Your task to perform on an android device: Show me popular games on the Play Store Image 0: 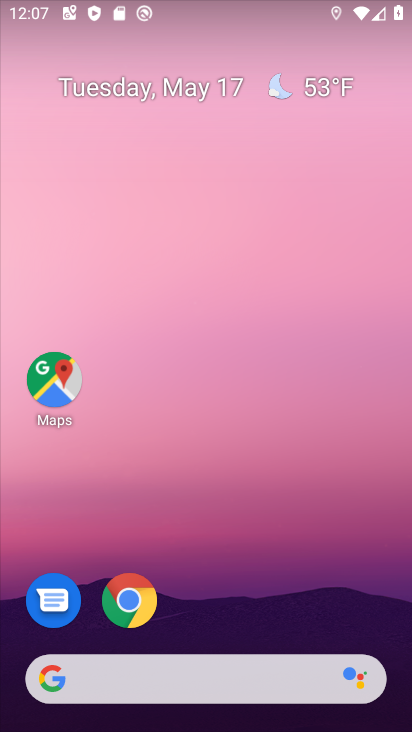
Step 0: drag from (249, 611) to (278, 20)
Your task to perform on an android device: Show me popular games on the Play Store Image 1: 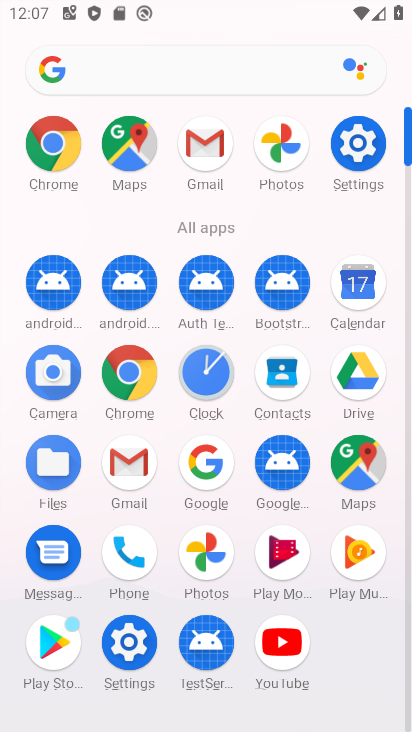
Step 1: click (49, 652)
Your task to perform on an android device: Show me popular games on the Play Store Image 2: 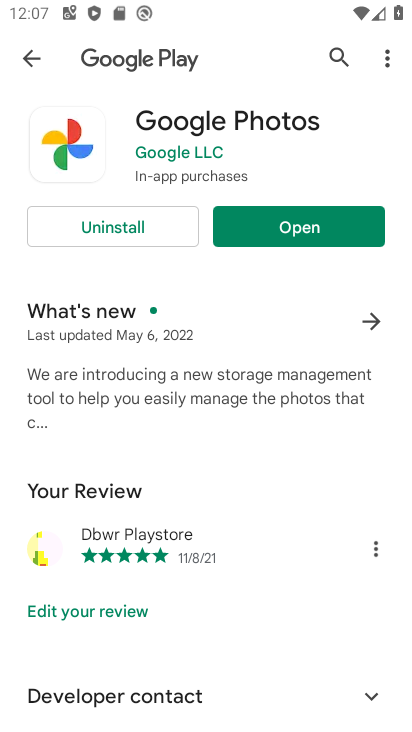
Step 2: click (29, 56)
Your task to perform on an android device: Show me popular games on the Play Store Image 3: 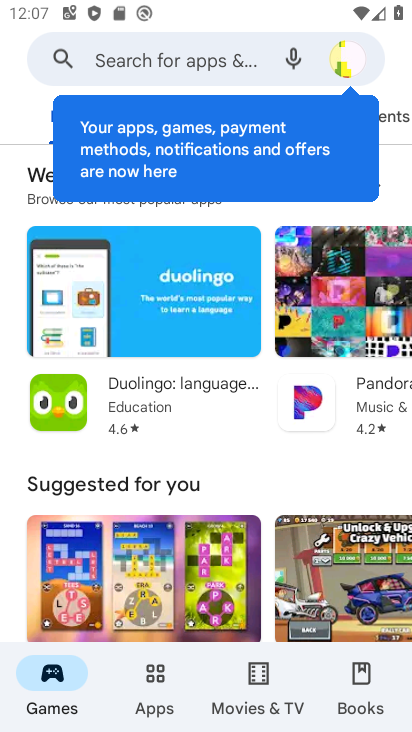
Step 3: drag from (226, 529) to (259, 367)
Your task to perform on an android device: Show me popular games on the Play Store Image 4: 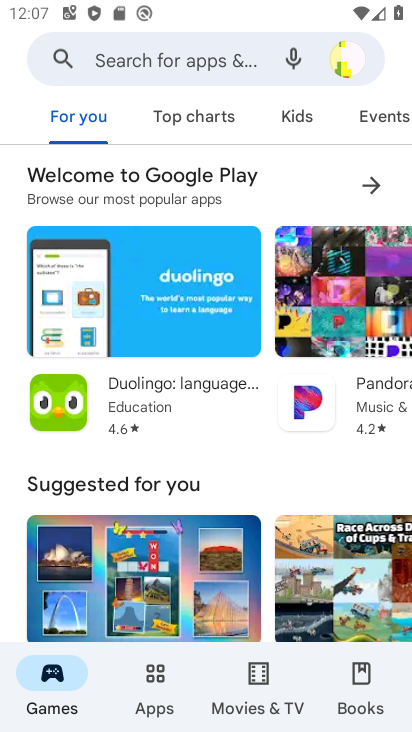
Step 4: click (269, 184)
Your task to perform on an android device: Show me popular games on the Play Store Image 5: 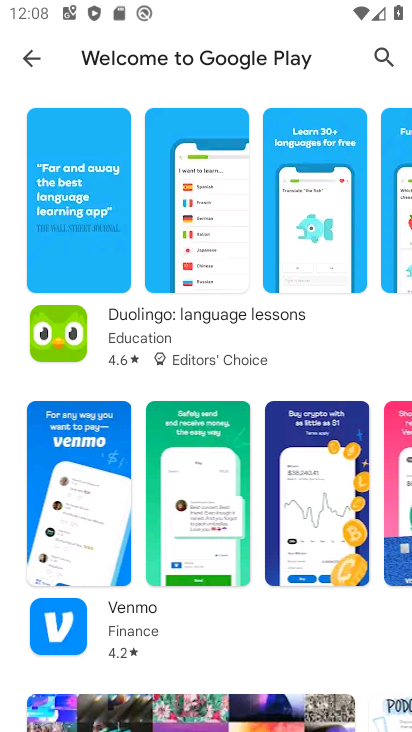
Step 5: task complete